Your task to perform on an android device: turn on wifi Image 0: 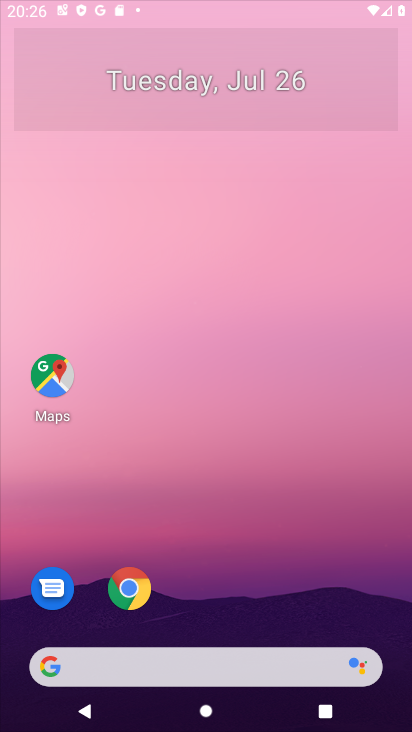
Step 0: press home button
Your task to perform on an android device: turn on wifi Image 1: 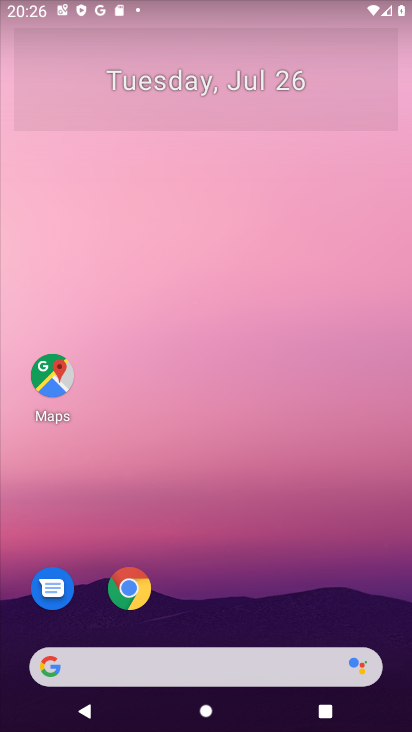
Step 1: drag from (226, 598) to (171, 156)
Your task to perform on an android device: turn on wifi Image 2: 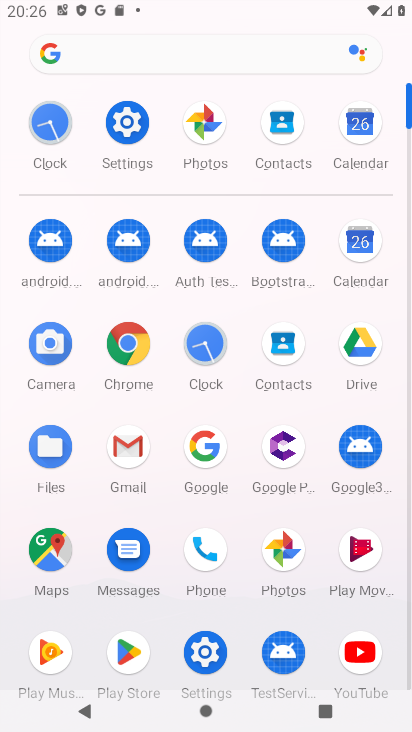
Step 2: click (131, 127)
Your task to perform on an android device: turn on wifi Image 3: 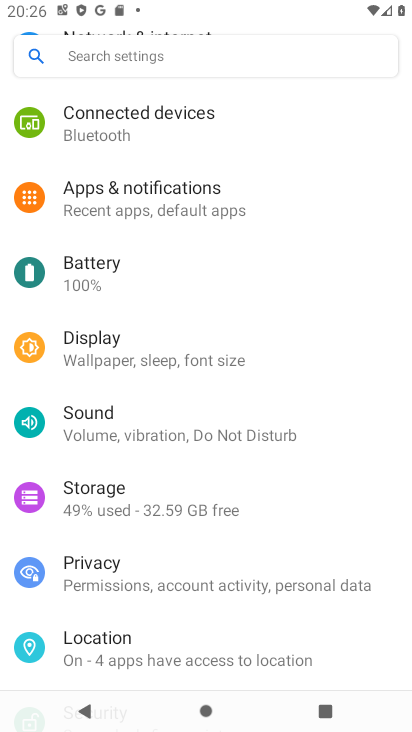
Step 3: drag from (103, 90) to (100, 319)
Your task to perform on an android device: turn on wifi Image 4: 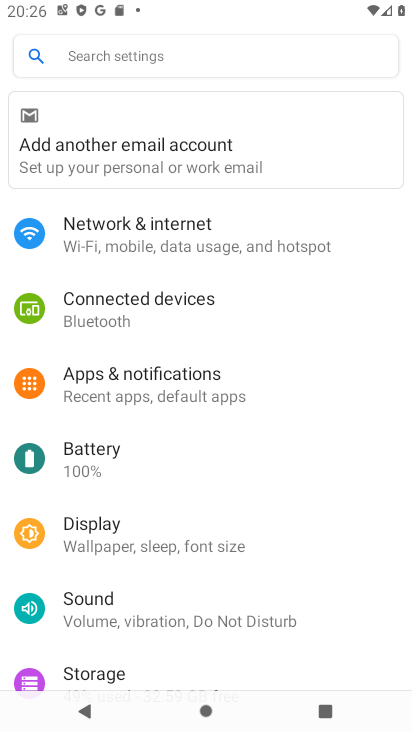
Step 4: click (169, 229)
Your task to perform on an android device: turn on wifi Image 5: 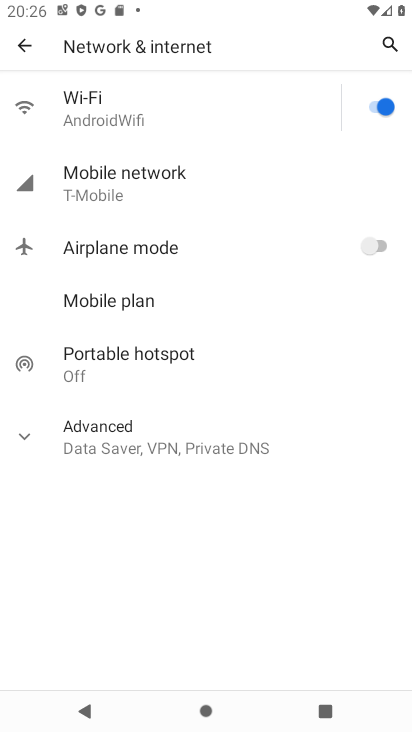
Step 5: task complete